Your task to perform on an android device: open app "Cash App" (install if not already installed) and enter user name: "submodules@gmail.com" and password: "heavenly" Image 0: 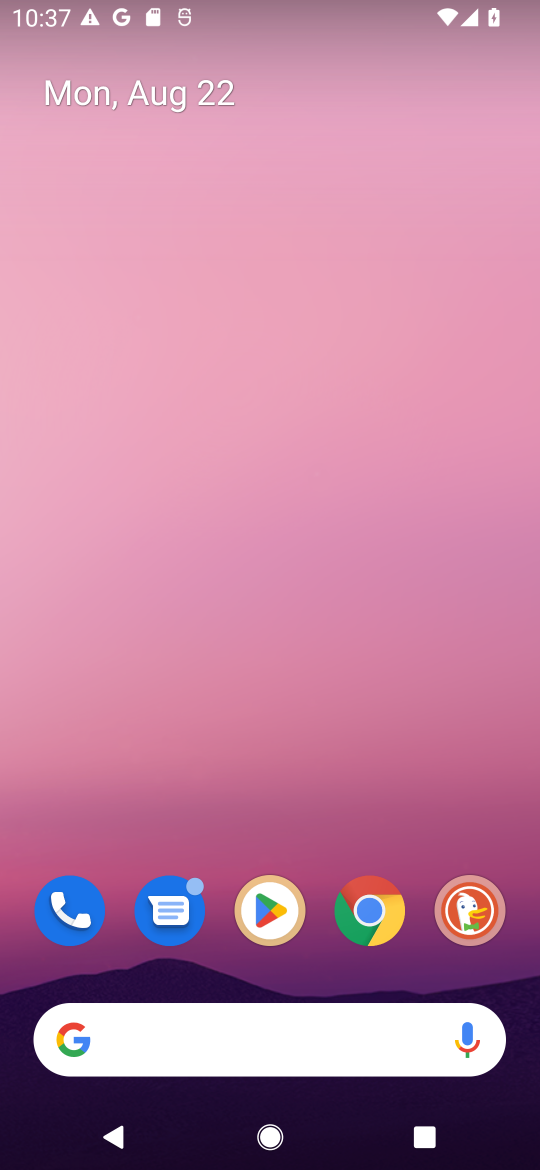
Step 0: click (279, 938)
Your task to perform on an android device: open app "Cash App" (install if not already installed) and enter user name: "submodules@gmail.com" and password: "heavenly" Image 1: 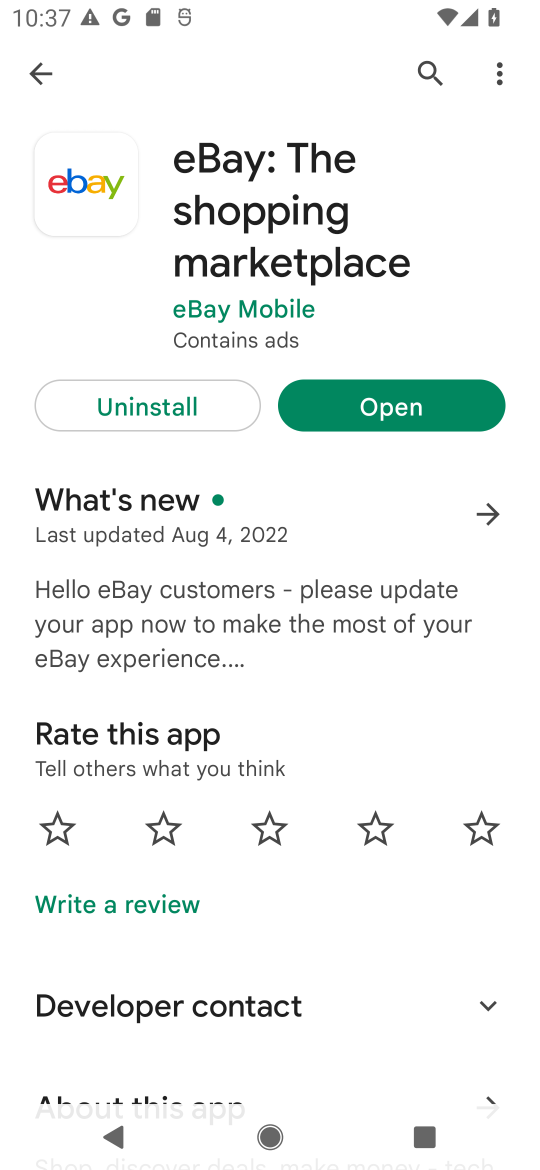
Step 1: click (410, 78)
Your task to perform on an android device: open app "Cash App" (install if not already installed) and enter user name: "submodules@gmail.com" and password: "heavenly" Image 2: 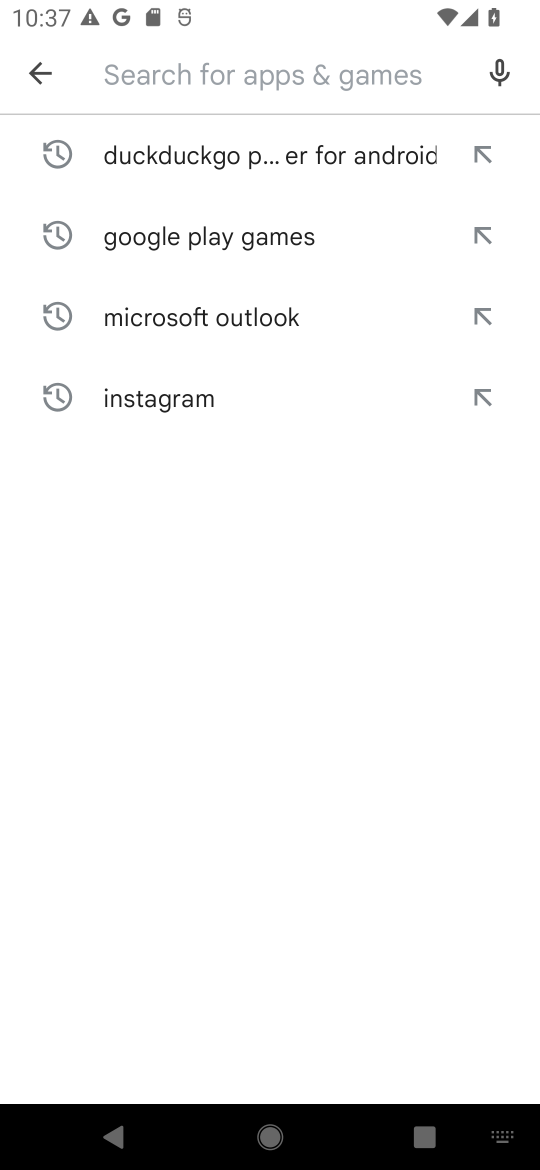
Step 2: type "Cash App"
Your task to perform on an android device: open app "Cash App" (install if not already installed) and enter user name: "submodules@gmail.com" and password: "heavenly" Image 3: 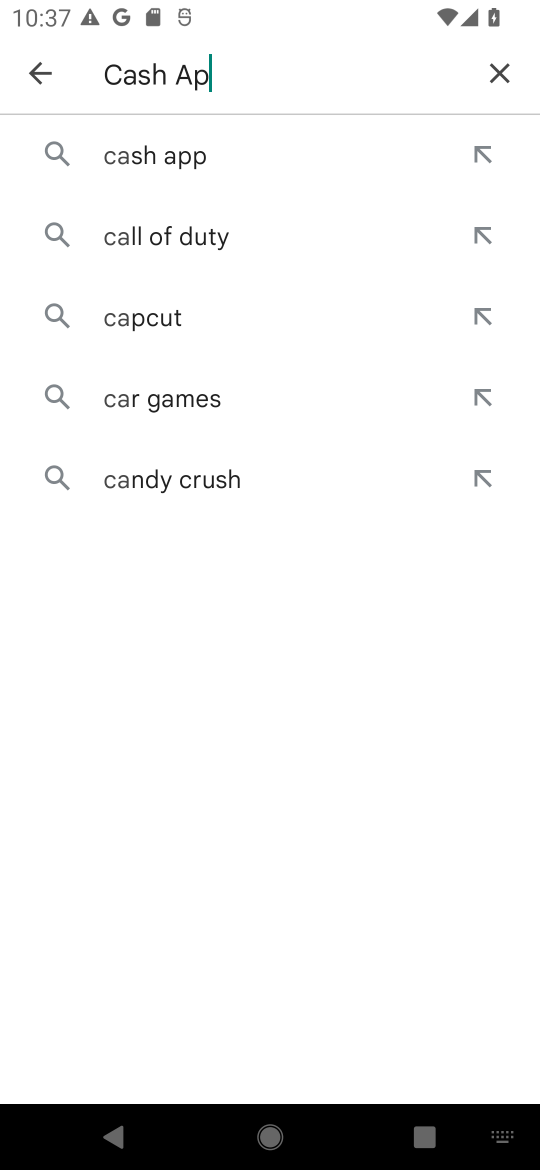
Step 3: type ""
Your task to perform on an android device: open app "Cash App" (install if not already installed) and enter user name: "submodules@gmail.com" and password: "heavenly" Image 4: 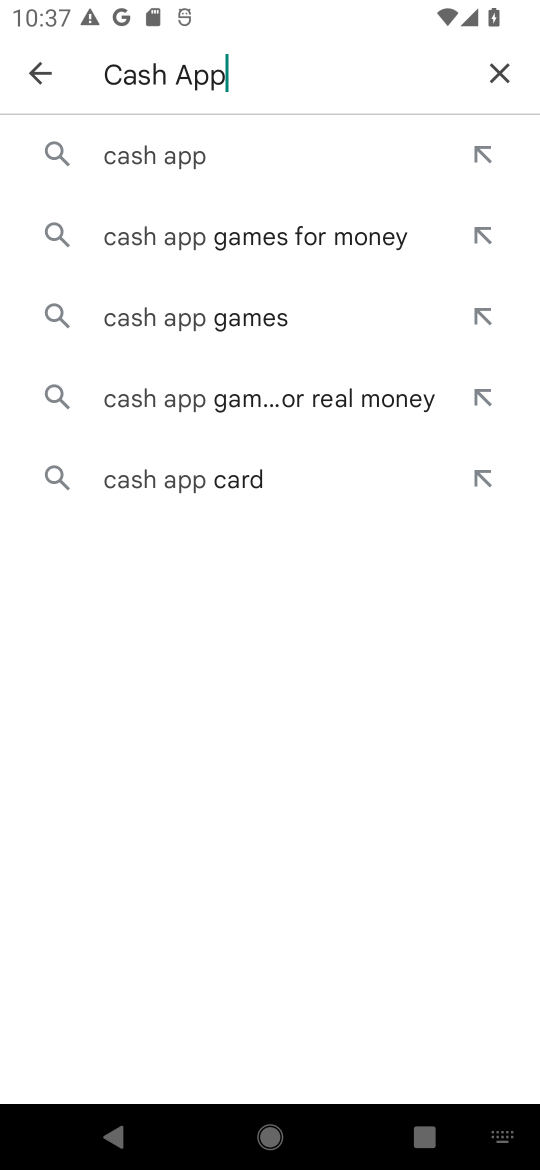
Step 4: click (212, 171)
Your task to perform on an android device: open app "Cash App" (install if not already installed) and enter user name: "submodules@gmail.com" and password: "heavenly" Image 5: 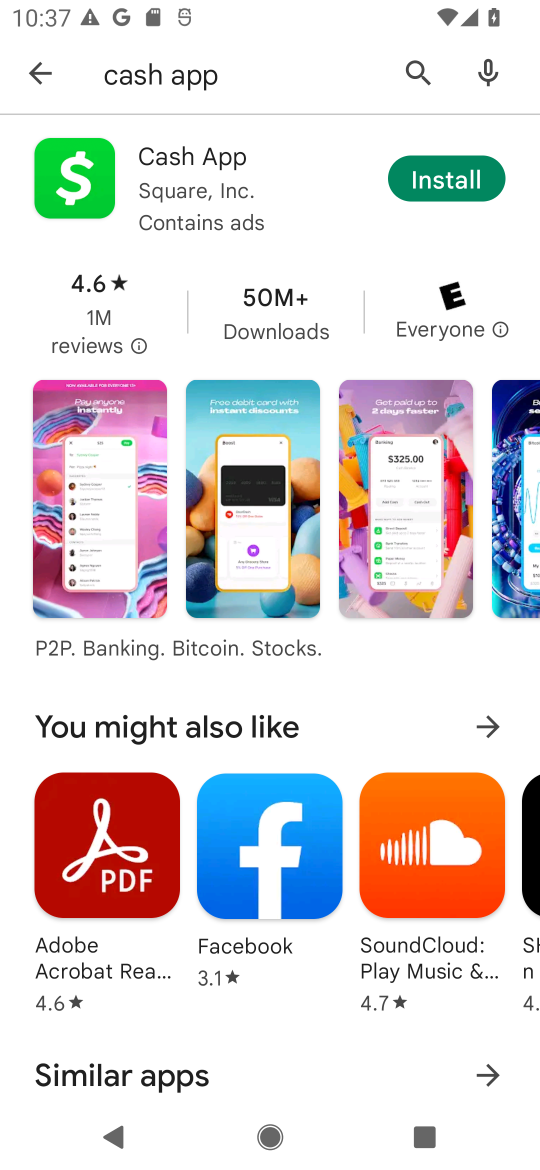
Step 5: click (430, 187)
Your task to perform on an android device: open app "Cash App" (install if not already installed) and enter user name: "submodules@gmail.com" and password: "heavenly" Image 6: 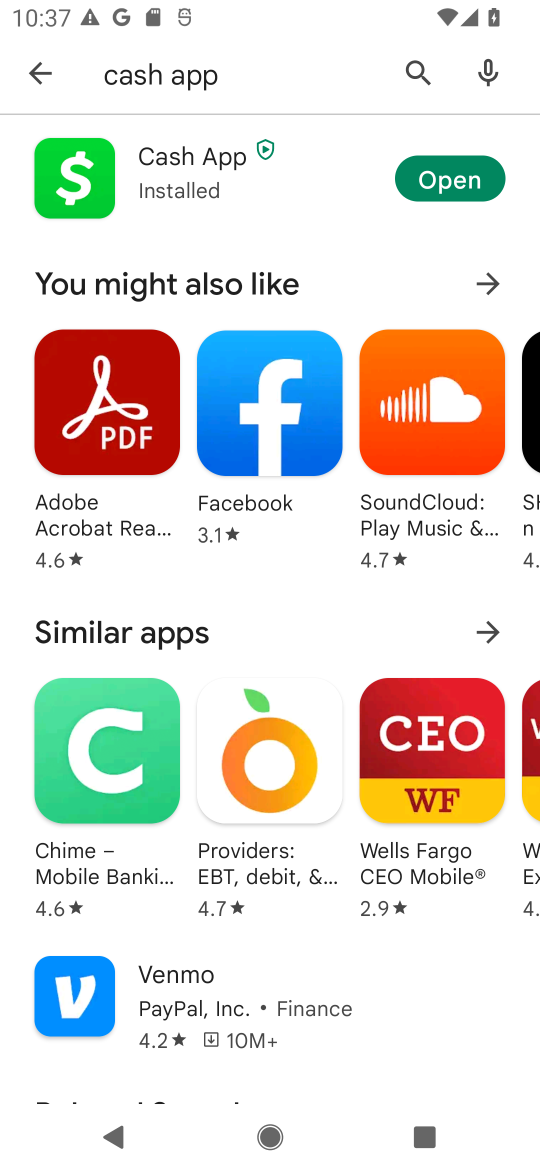
Step 6: click (430, 187)
Your task to perform on an android device: open app "Cash App" (install if not already installed) and enter user name: "submodules@gmail.com" and password: "heavenly" Image 7: 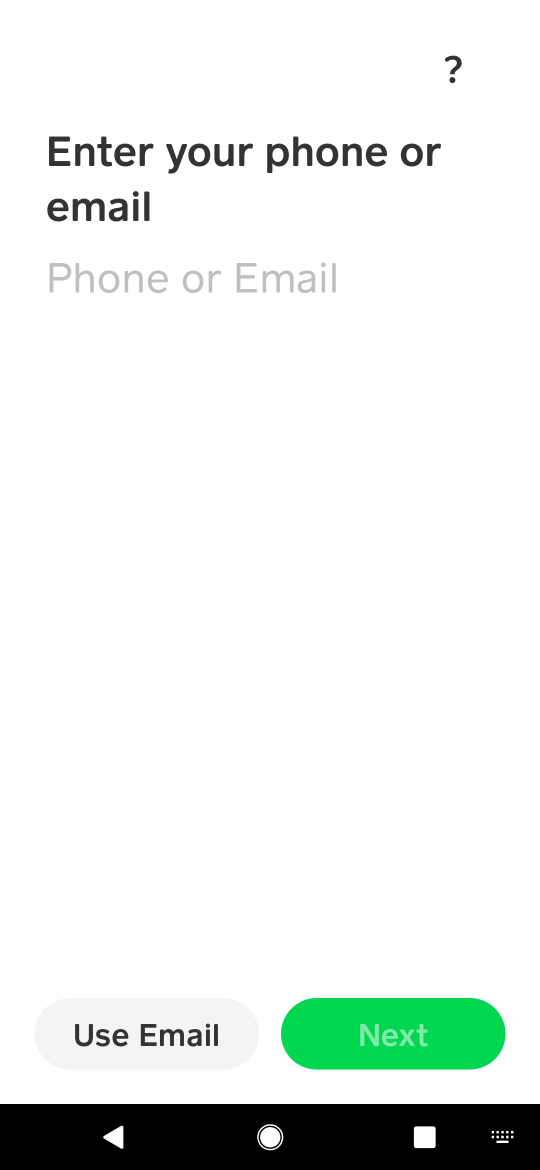
Step 7: task complete